Your task to perform on an android device: turn on wifi Image 0: 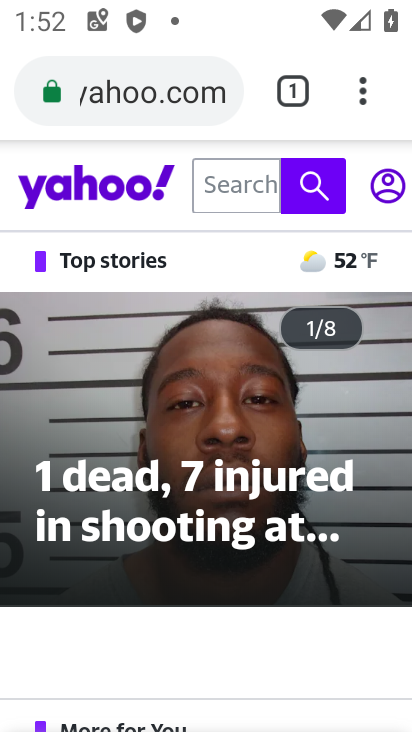
Step 0: press home button
Your task to perform on an android device: turn on wifi Image 1: 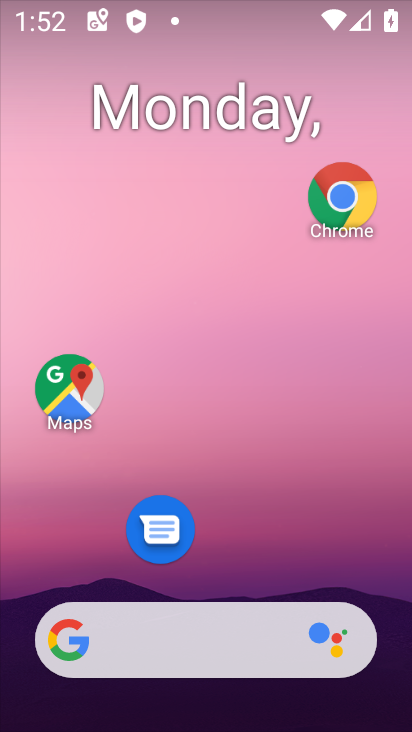
Step 1: drag from (197, 594) to (146, 45)
Your task to perform on an android device: turn on wifi Image 2: 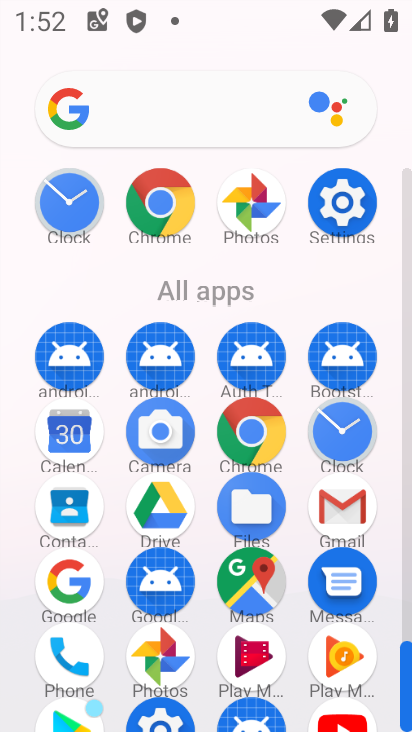
Step 2: click (350, 184)
Your task to perform on an android device: turn on wifi Image 3: 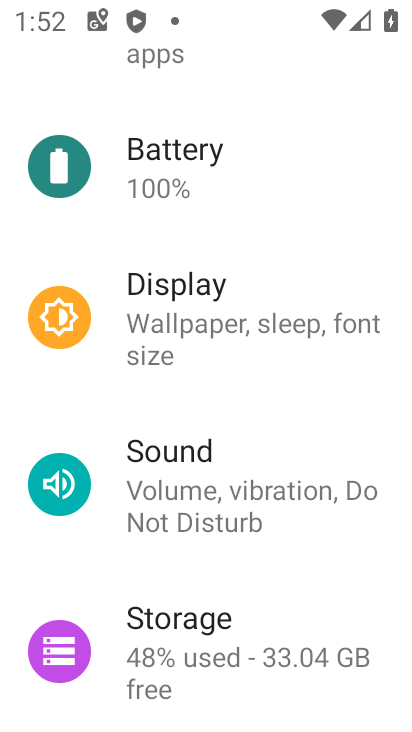
Step 3: drag from (263, 184) to (232, 582)
Your task to perform on an android device: turn on wifi Image 4: 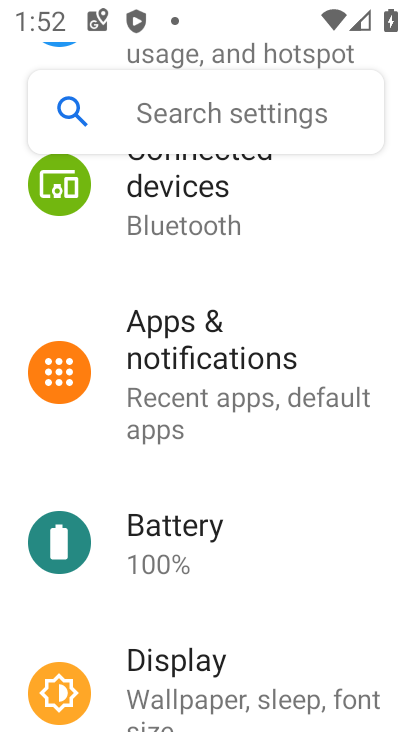
Step 4: drag from (175, 398) to (196, 727)
Your task to perform on an android device: turn on wifi Image 5: 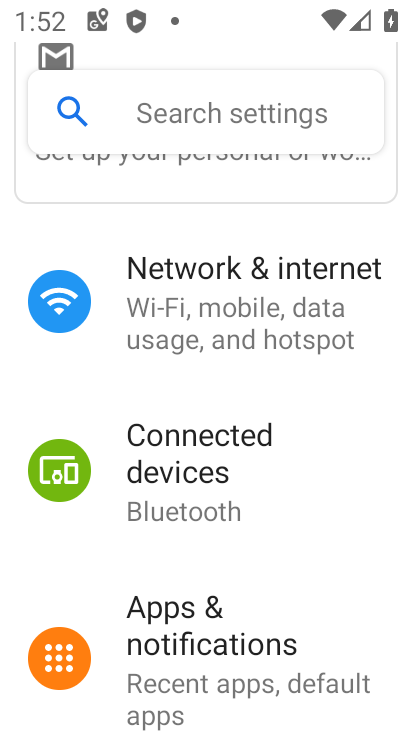
Step 5: click (197, 272)
Your task to perform on an android device: turn on wifi Image 6: 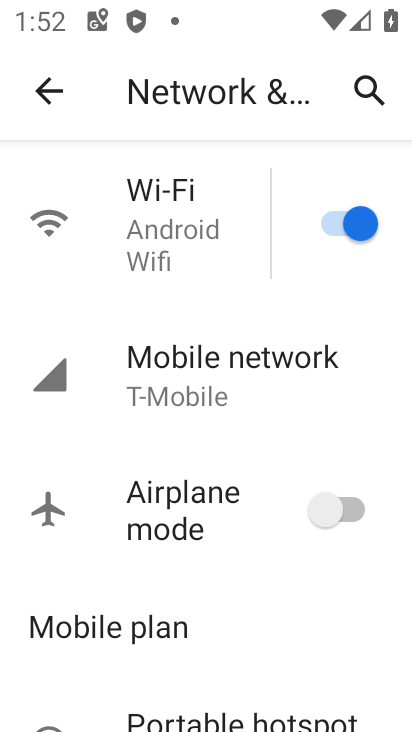
Step 6: click (201, 242)
Your task to perform on an android device: turn on wifi Image 7: 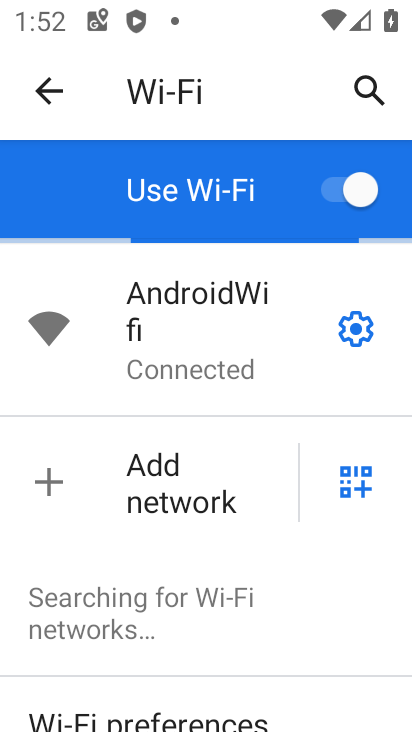
Step 7: task complete